Your task to perform on an android device: Go to Android settings Image 0: 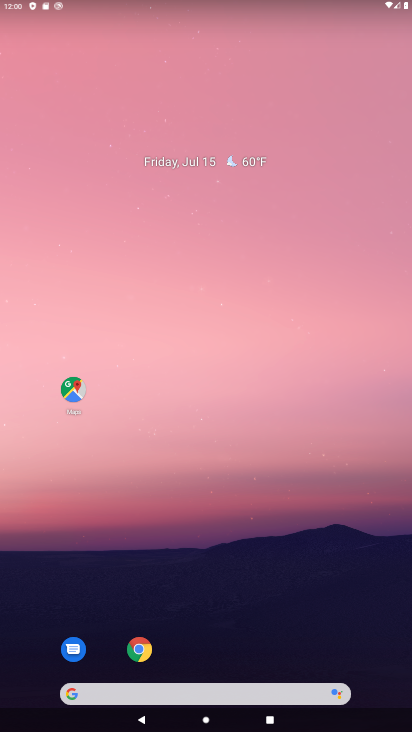
Step 0: drag from (248, 623) to (238, 189)
Your task to perform on an android device: Go to Android settings Image 1: 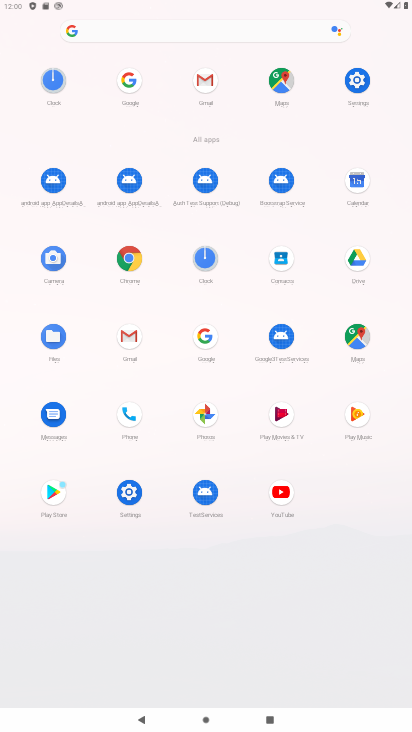
Step 1: click (363, 83)
Your task to perform on an android device: Go to Android settings Image 2: 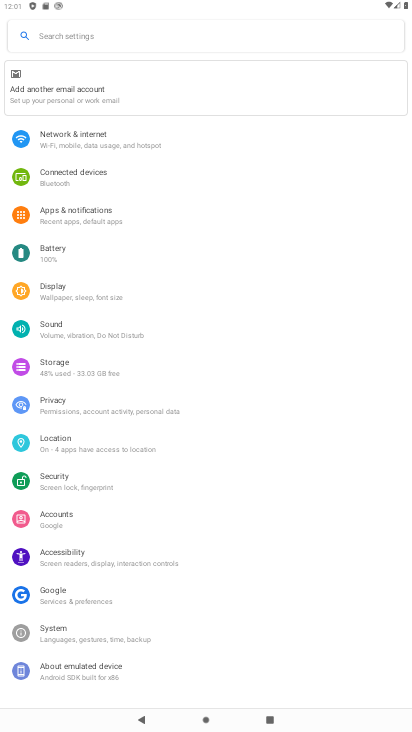
Step 2: task complete